Your task to perform on an android device: Go to Wikipedia Image 0: 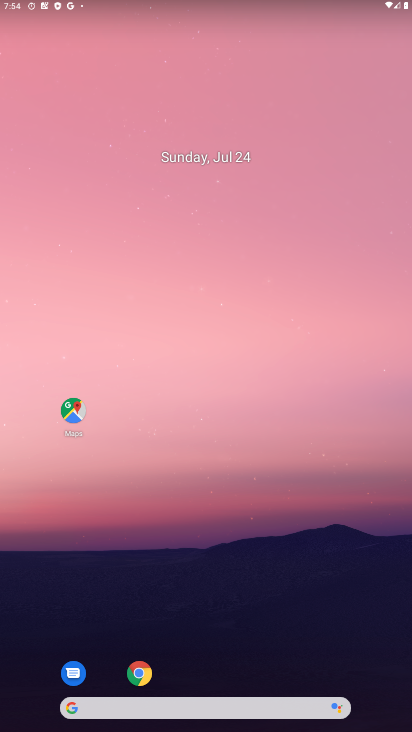
Step 0: click (108, 714)
Your task to perform on an android device: Go to Wikipedia Image 1: 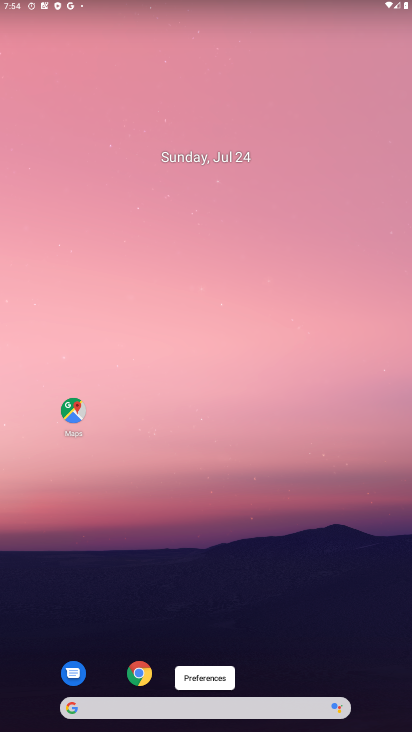
Step 1: click (118, 718)
Your task to perform on an android device: Go to Wikipedia Image 2: 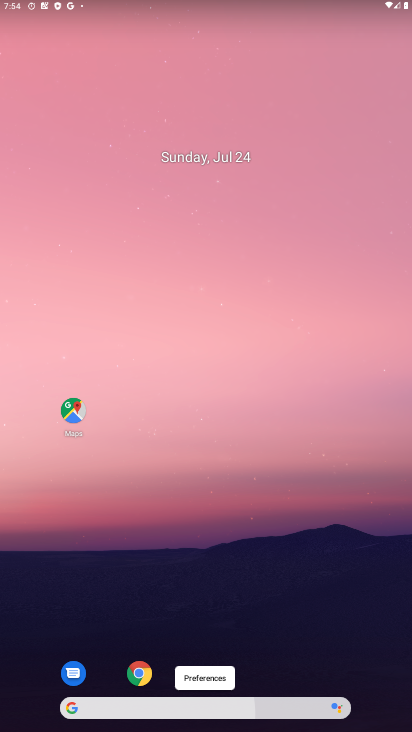
Step 2: click (117, 701)
Your task to perform on an android device: Go to Wikipedia Image 3: 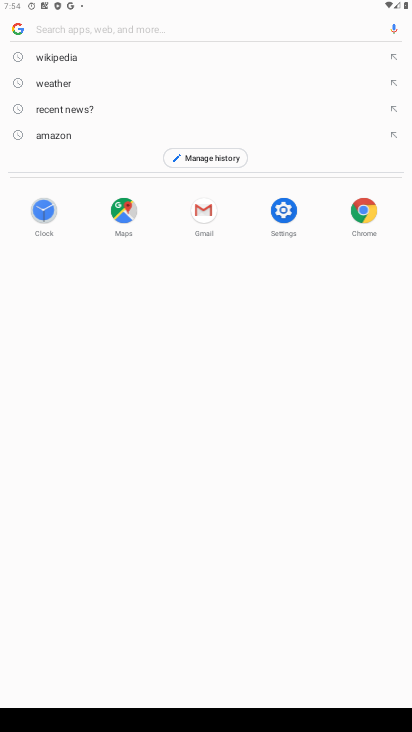
Step 3: click (65, 58)
Your task to perform on an android device: Go to Wikipedia Image 4: 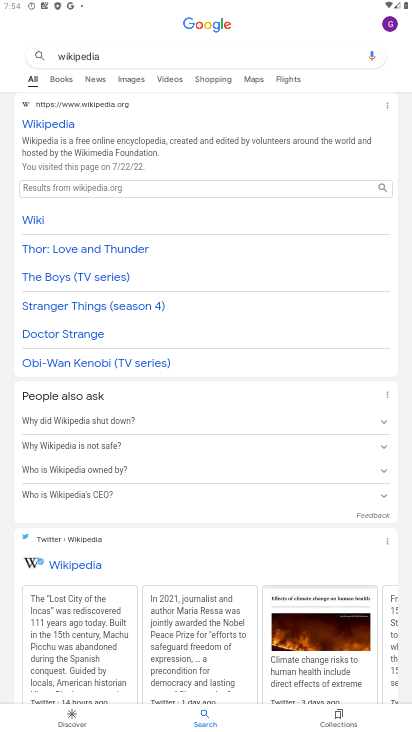
Step 4: task complete